Your task to perform on an android device: Go to internet settings Image 0: 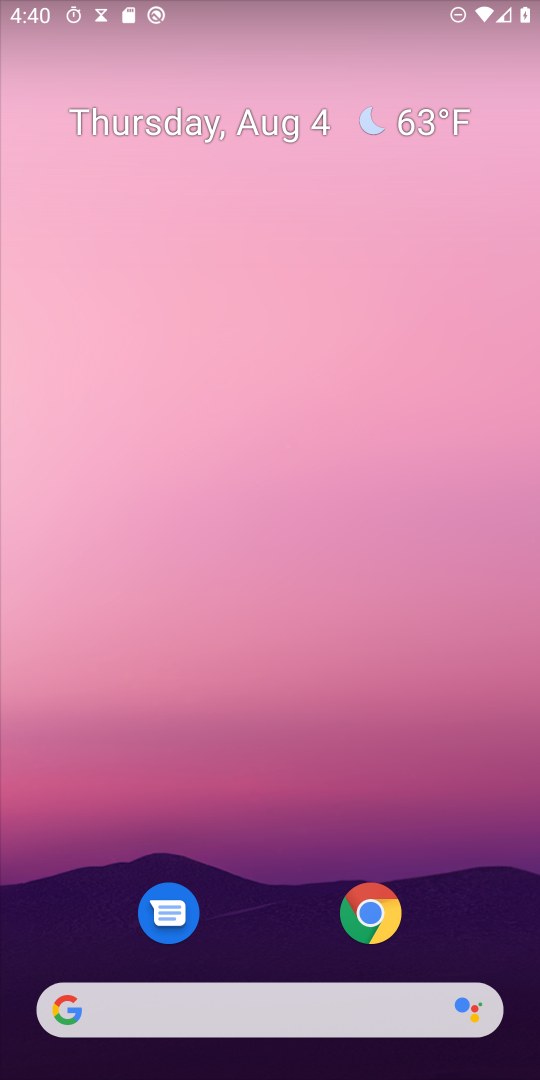
Step 0: drag from (197, 1015) to (313, 6)
Your task to perform on an android device: Go to internet settings Image 1: 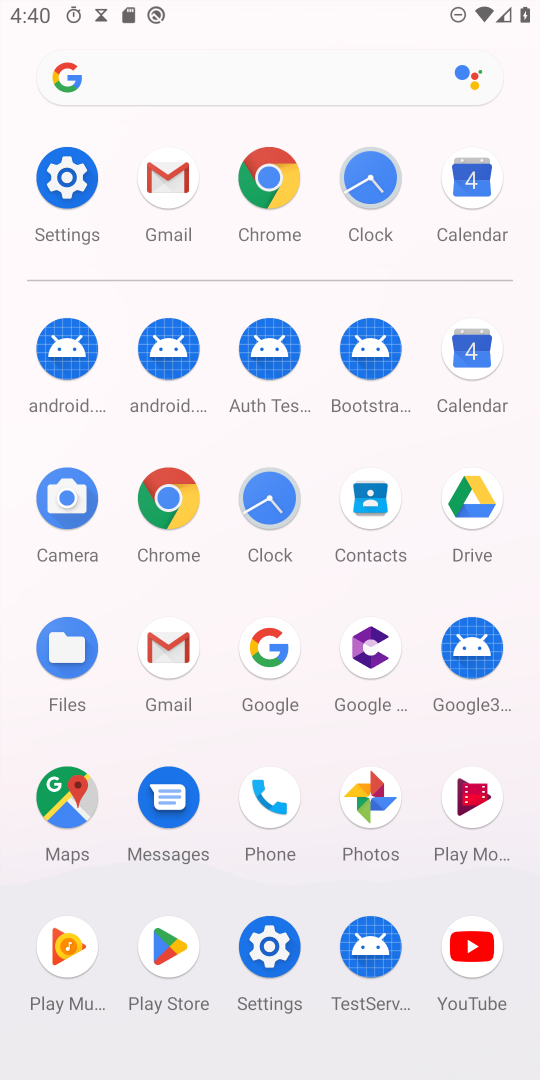
Step 1: click (80, 188)
Your task to perform on an android device: Go to internet settings Image 2: 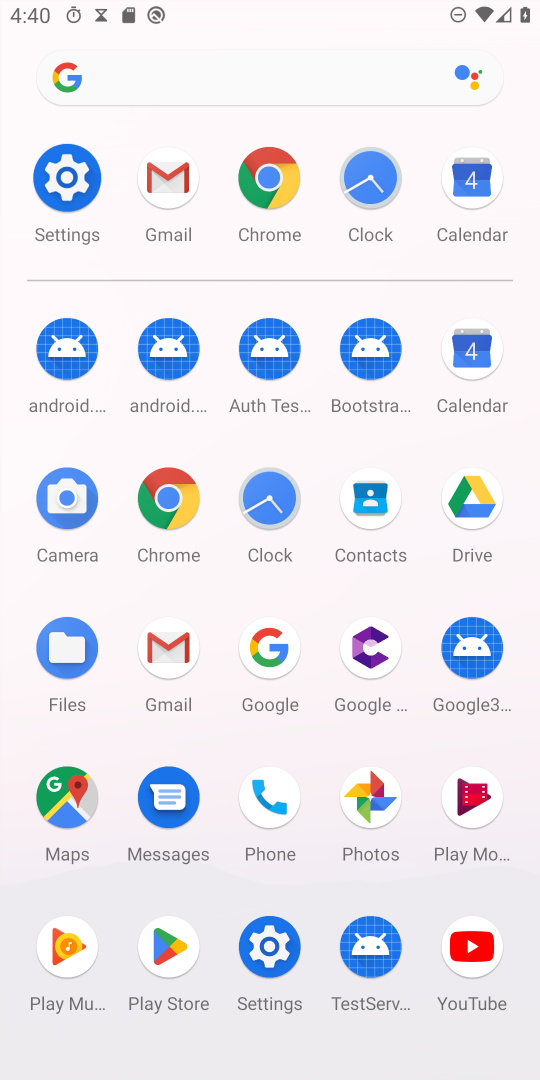
Step 2: click (82, 185)
Your task to perform on an android device: Go to internet settings Image 3: 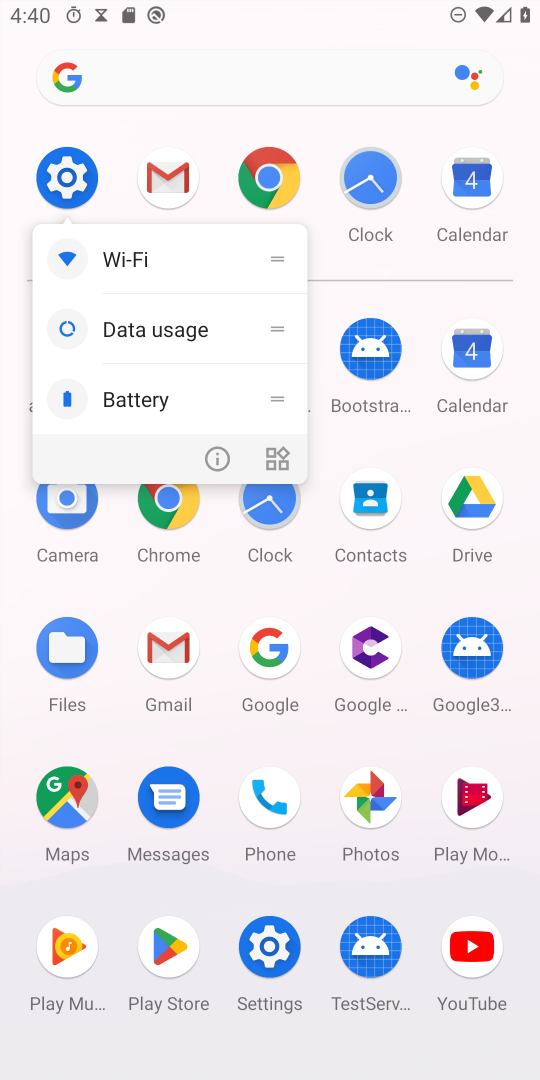
Step 3: click (58, 182)
Your task to perform on an android device: Go to internet settings Image 4: 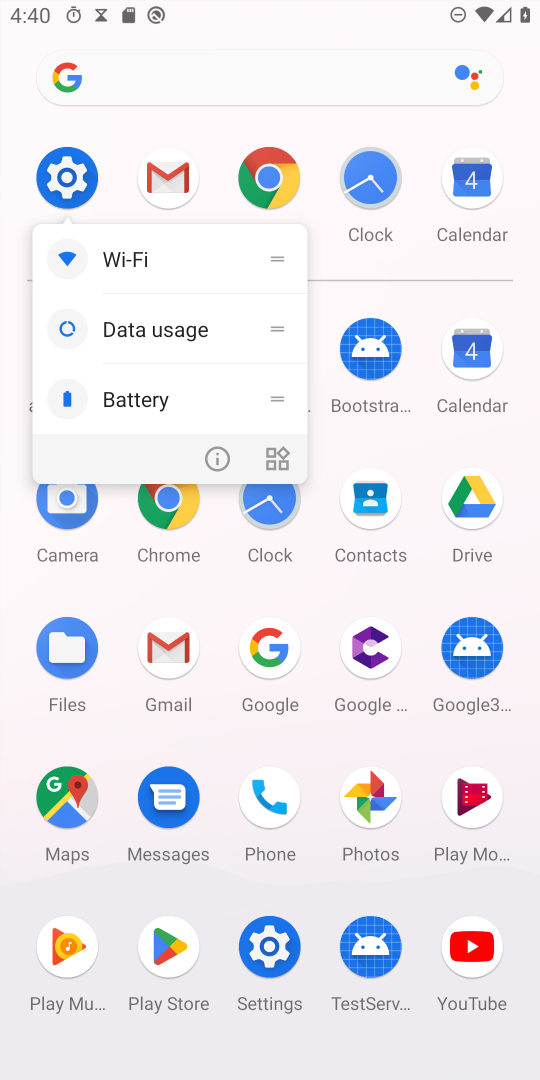
Step 4: click (58, 182)
Your task to perform on an android device: Go to internet settings Image 5: 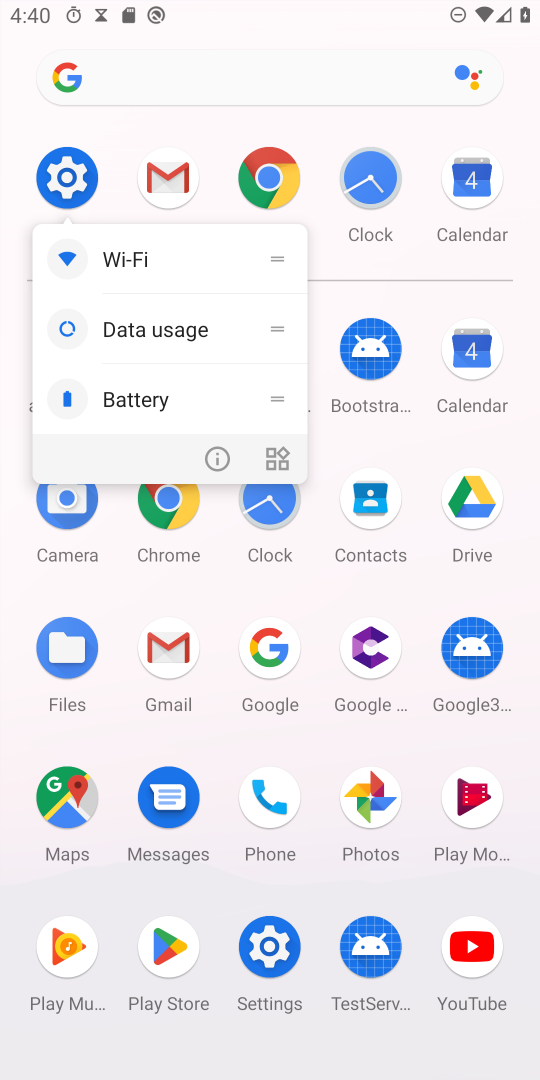
Step 5: click (58, 182)
Your task to perform on an android device: Go to internet settings Image 6: 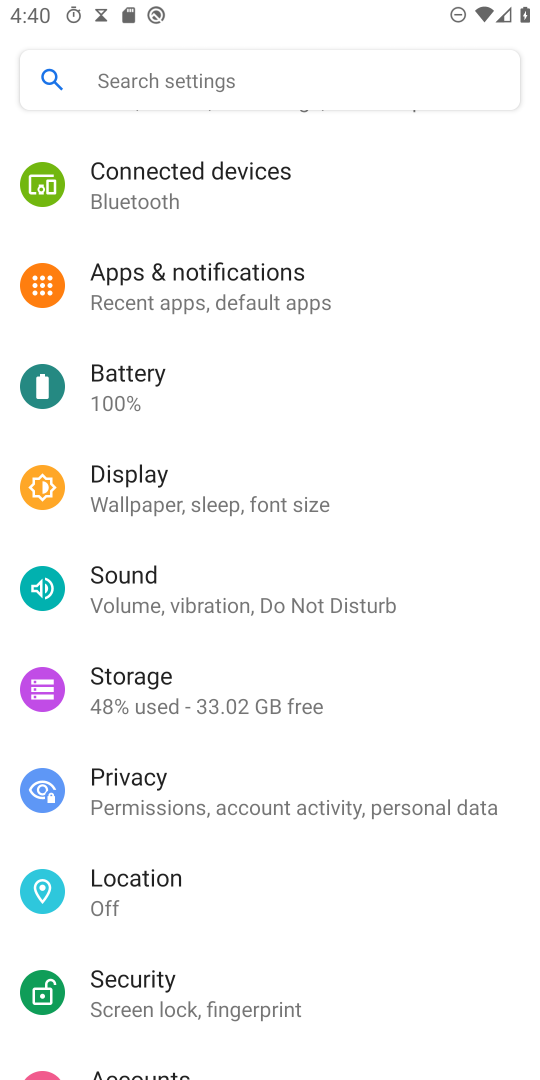
Step 6: drag from (194, 217) to (303, 1069)
Your task to perform on an android device: Go to internet settings Image 7: 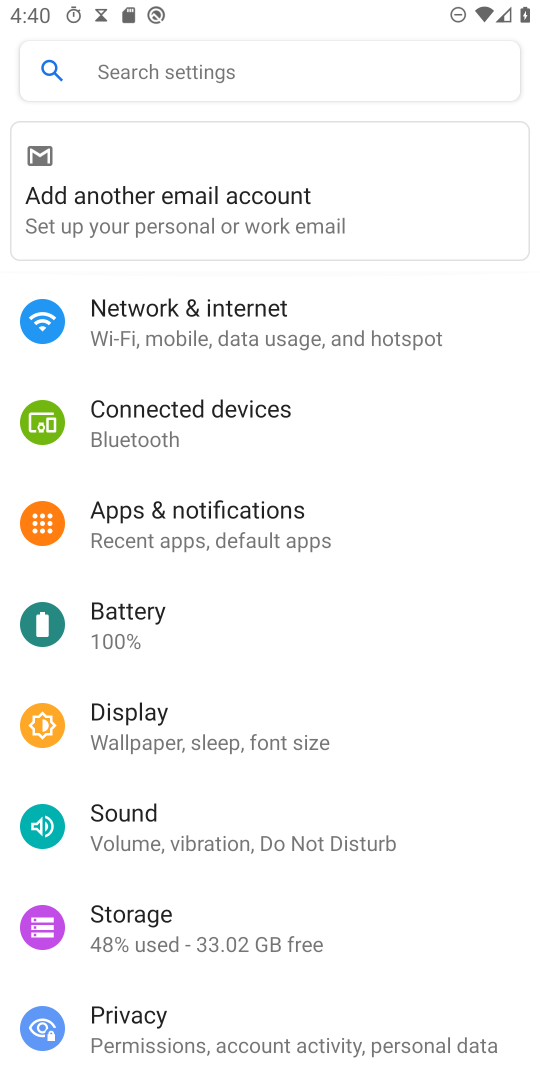
Step 7: click (200, 337)
Your task to perform on an android device: Go to internet settings Image 8: 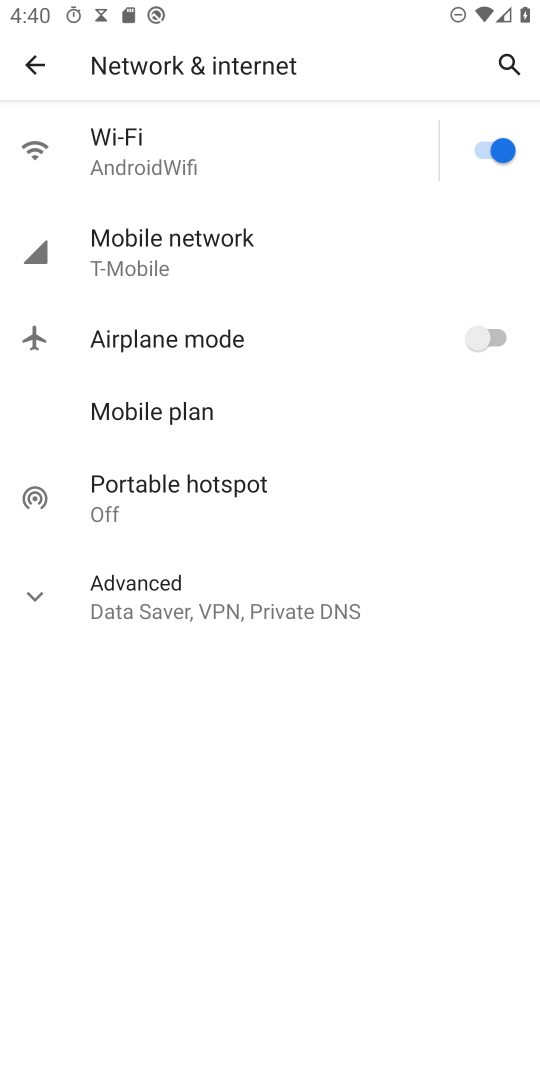
Step 8: task complete